Your task to perform on an android device: open chrome privacy settings Image 0: 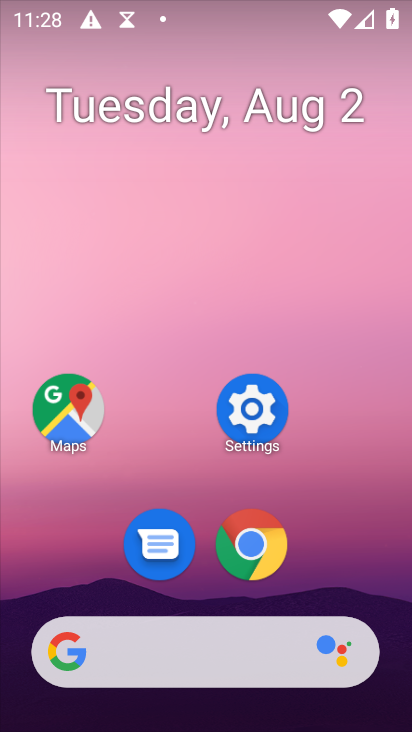
Step 0: press home button
Your task to perform on an android device: open chrome privacy settings Image 1: 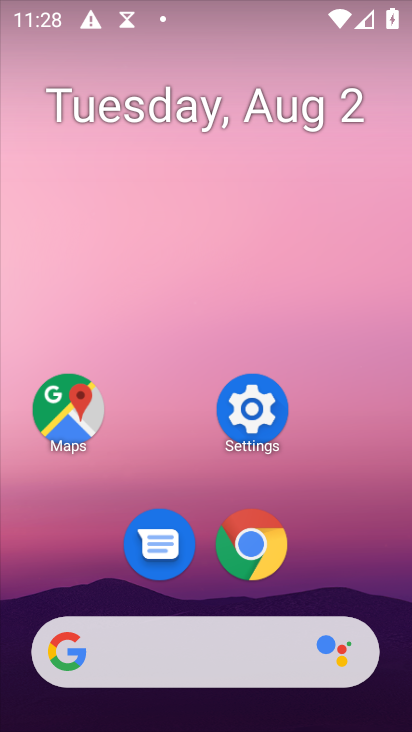
Step 1: click (254, 552)
Your task to perform on an android device: open chrome privacy settings Image 2: 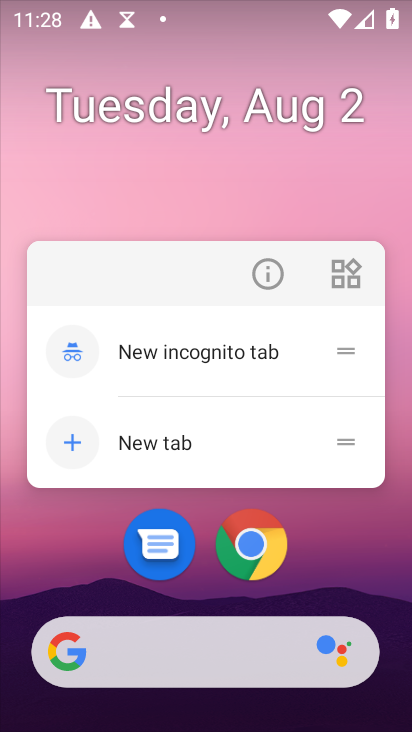
Step 2: click (254, 553)
Your task to perform on an android device: open chrome privacy settings Image 3: 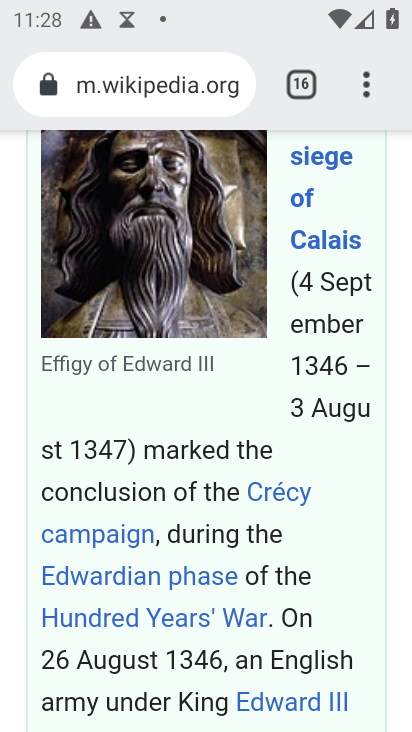
Step 3: drag from (370, 79) to (156, 607)
Your task to perform on an android device: open chrome privacy settings Image 4: 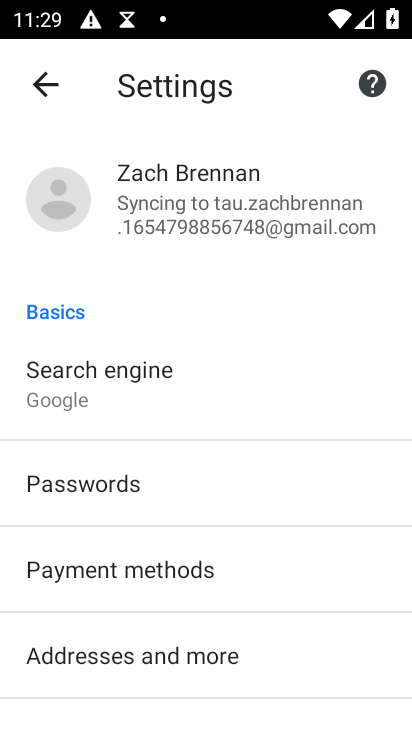
Step 4: drag from (278, 694) to (311, 298)
Your task to perform on an android device: open chrome privacy settings Image 5: 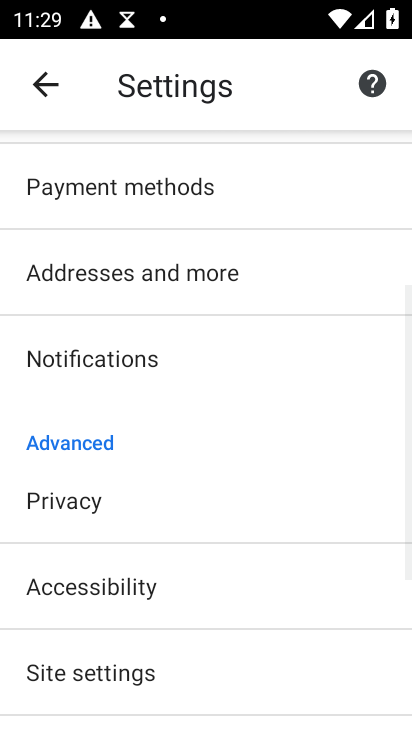
Step 5: click (78, 502)
Your task to perform on an android device: open chrome privacy settings Image 6: 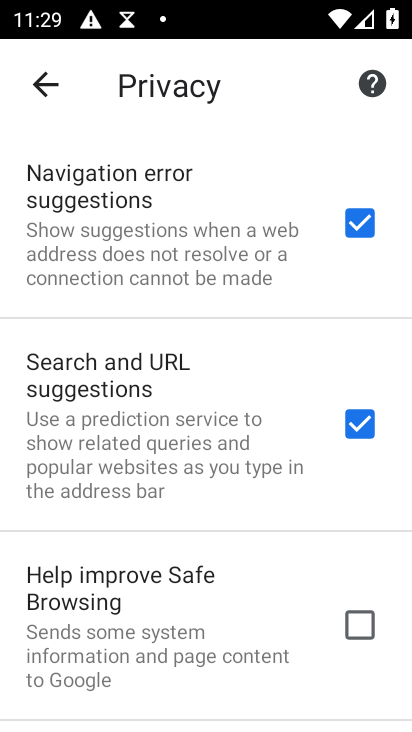
Step 6: task complete